Your task to perform on an android device: Open battery settings Image 0: 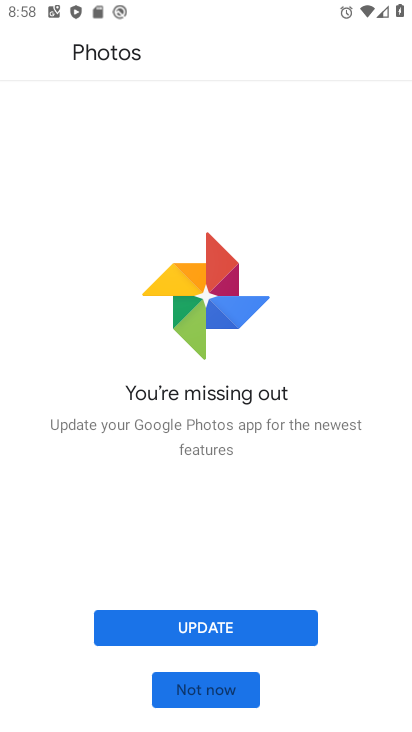
Step 0: press home button
Your task to perform on an android device: Open battery settings Image 1: 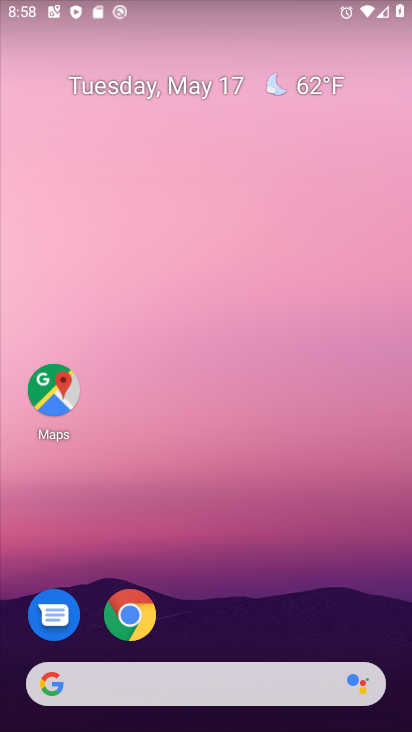
Step 1: drag from (376, 10) to (334, 536)
Your task to perform on an android device: Open battery settings Image 2: 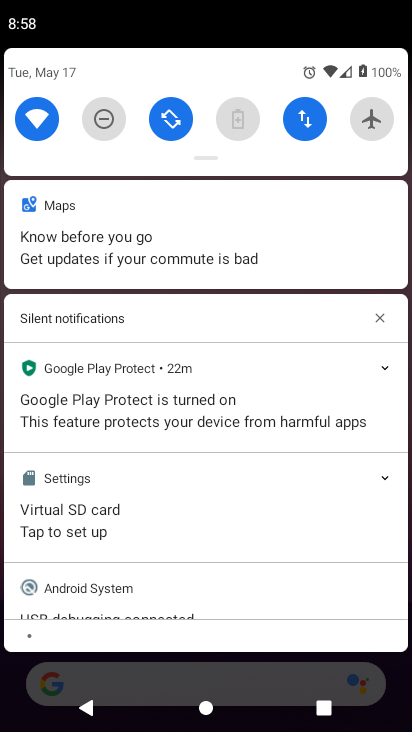
Step 2: drag from (302, 168) to (279, 694)
Your task to perform on an android device: Open battery settings Image 3: 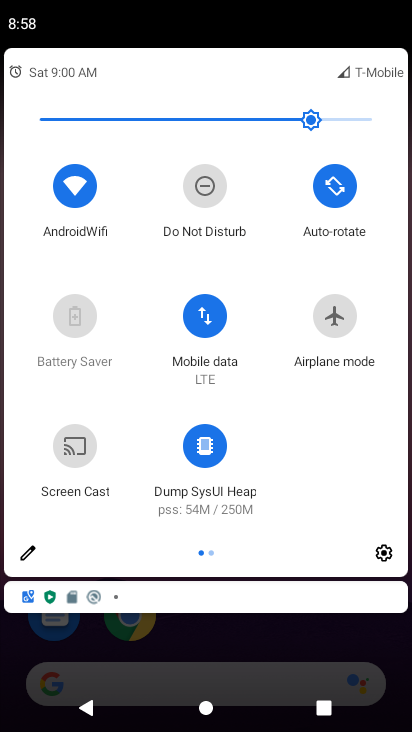
Step 3: click (386, 553)
Your task to perform on an android device: Open battery settings Image 4: 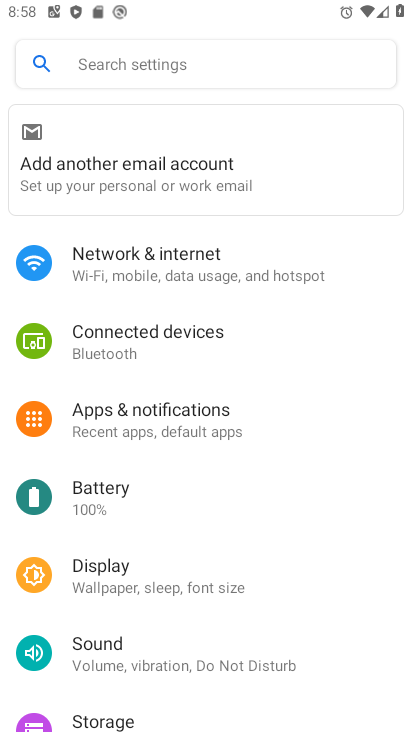
Step 4: click (123, 491)
Your task to perform on an android device: Open battery settings Image 5: 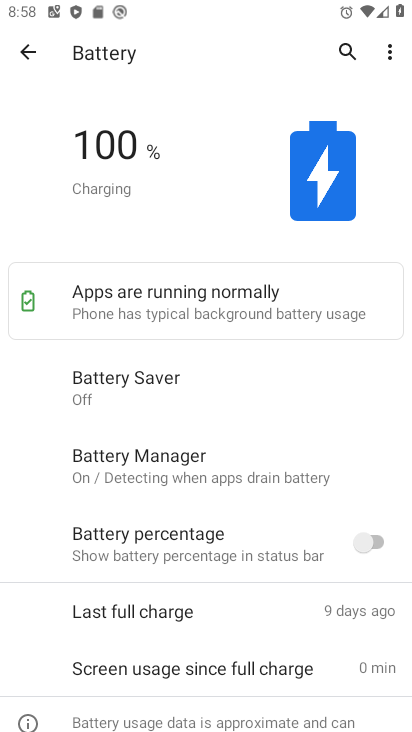
Step 5: task complete